Your task to perform on an android device: see sites visited before in the chrome app Image 0: 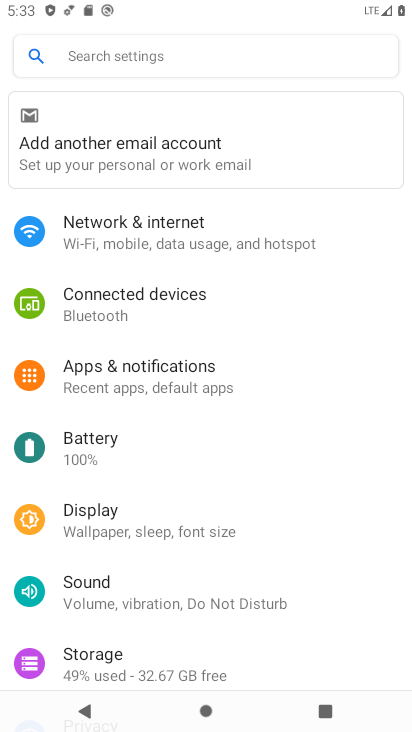
Step 0: press home button
Your task to perform on an android device: see sites visited before in the chrome app Image 1: 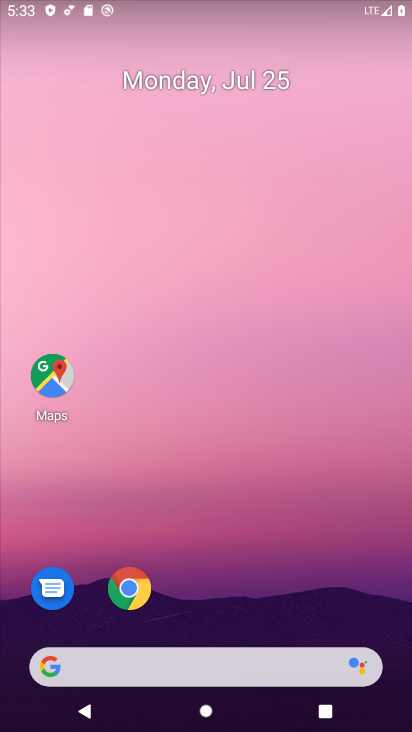
Step 1: click (125, 585)
Your task to perform on an android device: see sites visited before in the chrome app Image 2: 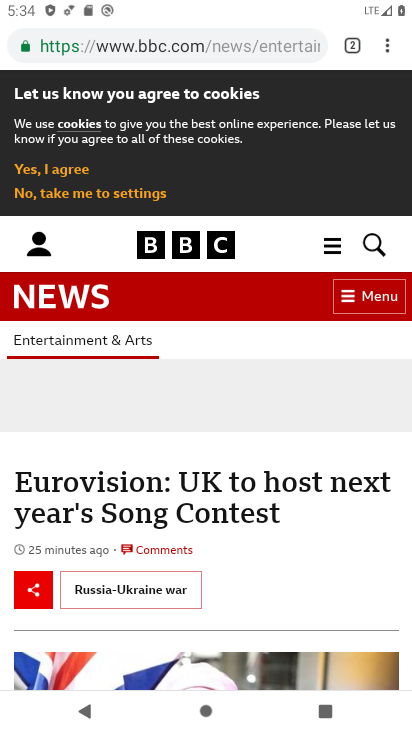
Step 2: click (386, 44)
Your task to perform on an android device: see sites visited before in the chrome app Image 3: 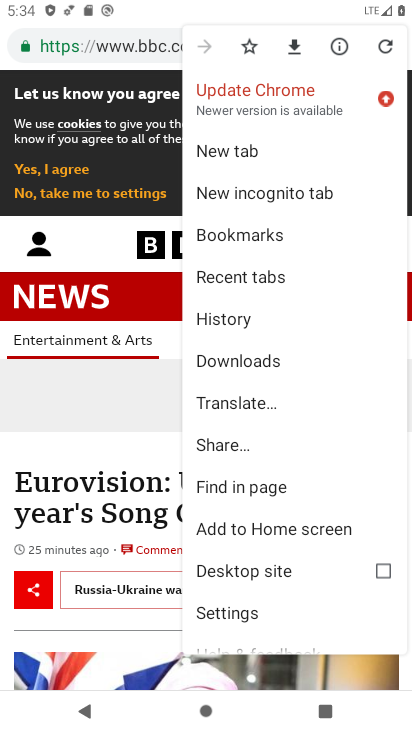
Step 3: click (235, 318)
Your task to perform on an android device: see sites visited before in the chrome app Image 4: 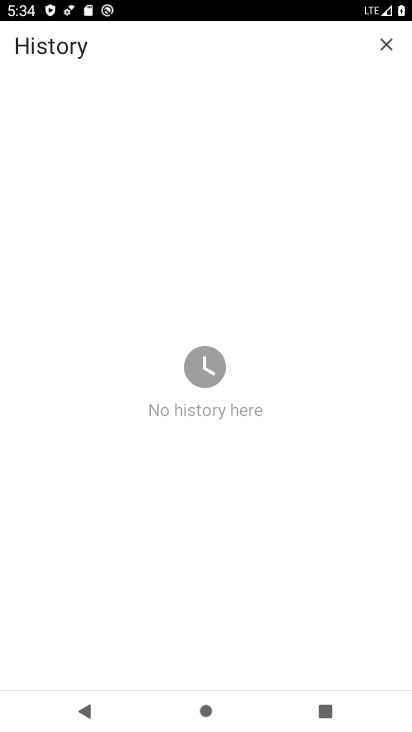
Step 4: task complete